Your task to perform on an android device: What's the weather today? Image 0: 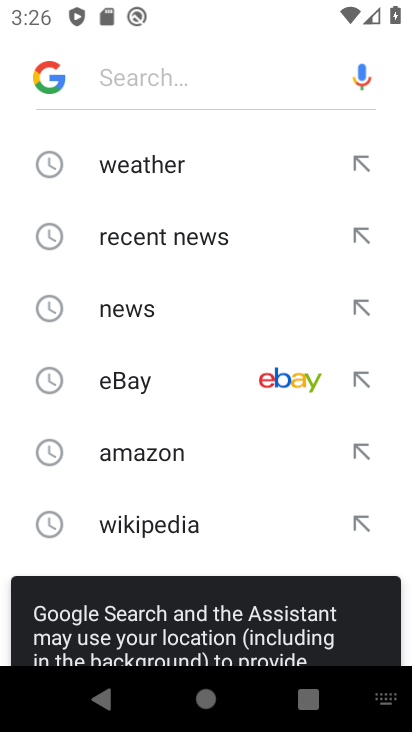
Step 0: press home button
Your task to perform on an android device: What's the weather today? Image 1: 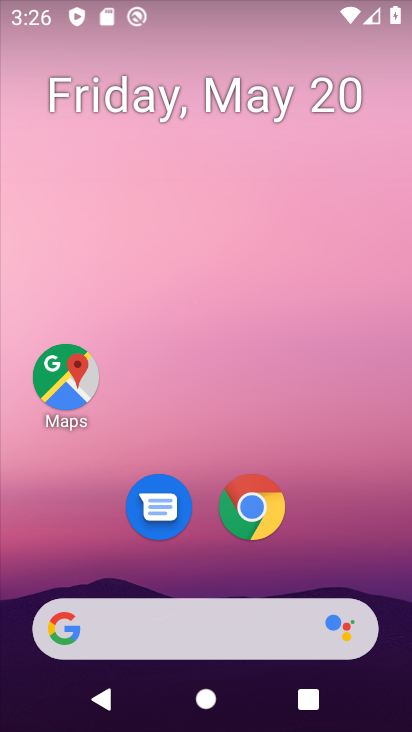
Step 1: drag from (315, 546) to (262, 44)
Your task to perform on an android device: What's the weather today? Image 2: 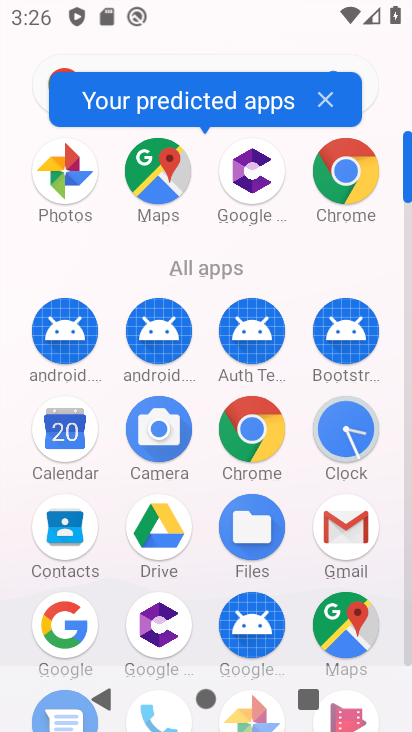
Step 2: drag from (206, 477) to (196, 221)
Your task to perform on an android device: What's the weather today? Image 3: 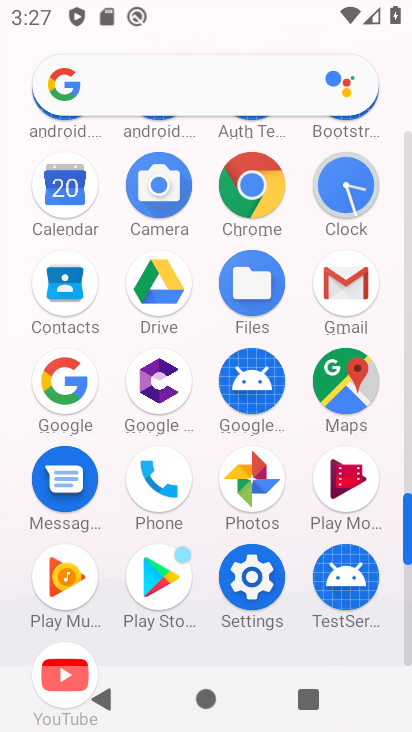
Step 3: click (58, 378)
Your task to perform on an android device: What's the weather today? Image 4: 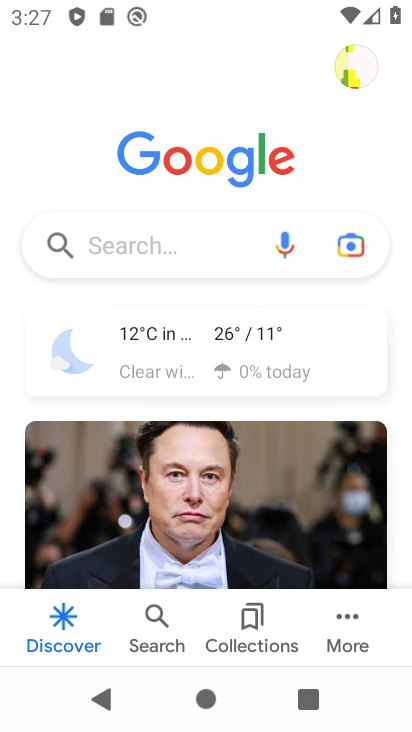
Step 4: click (187, 334)
Your task to perform on an android device: What's the weather today? Image 5: 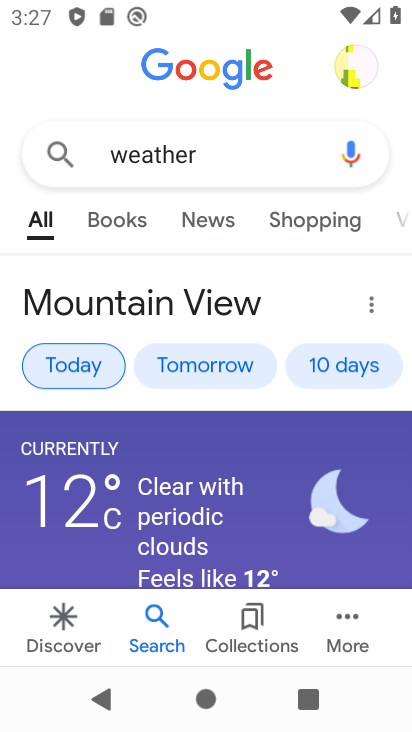
Step 5: task complete